Your task to perform on an android device: Search for pizza restaurants on Maps Image 0: 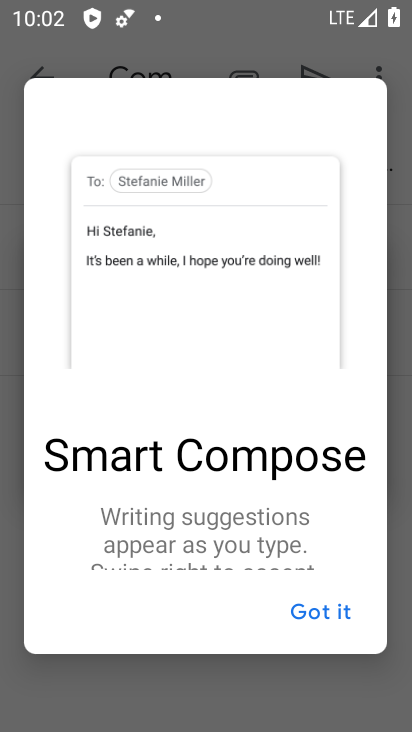
Step 0: press home button
Your task to perform on an android device: Search for pizza restaurants on Maps Image 1: 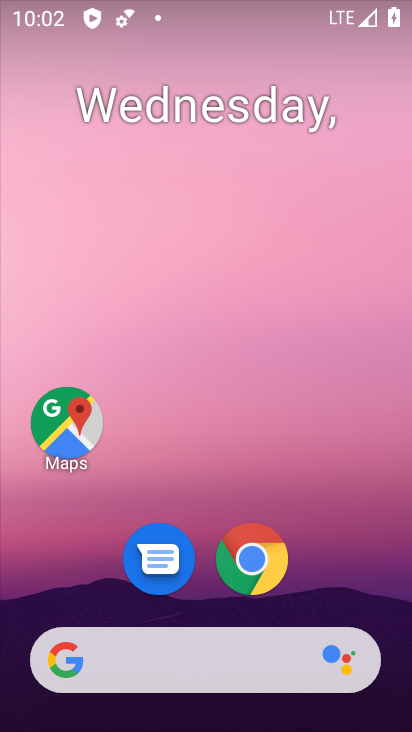
Step 1: click (258, 557)
Your task to perform on an android device: Search for pizza restaurants on Maps Image 2: 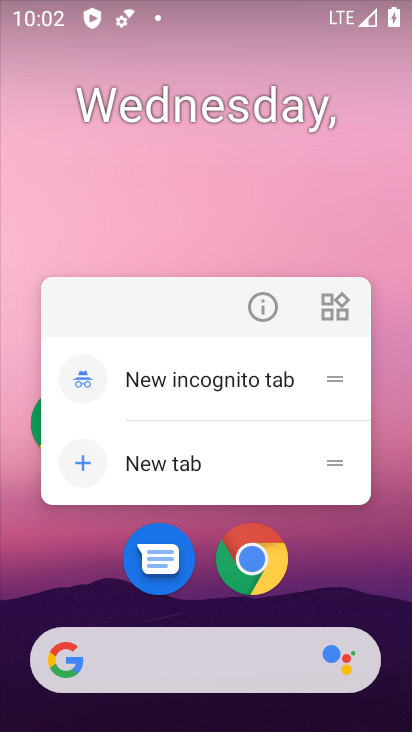
Step 2: click (258, 557)
Your task to perform on an android device: Search for pizza restaurants on Maps Image 3: 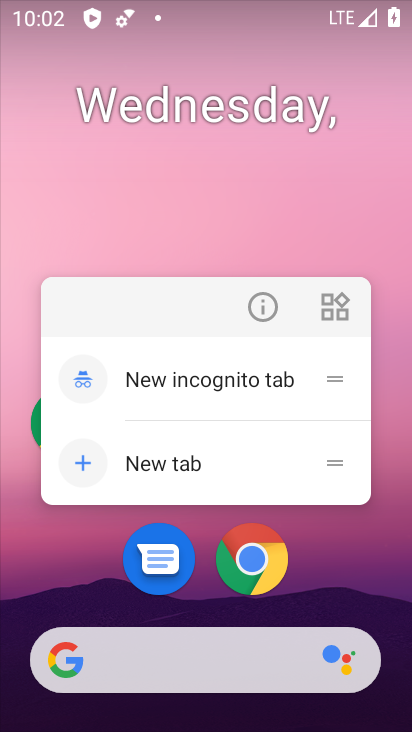
Step 3: click (258, 557)
Your task to perform on an android device: Search for pizza restaurants on Maps Image 4: 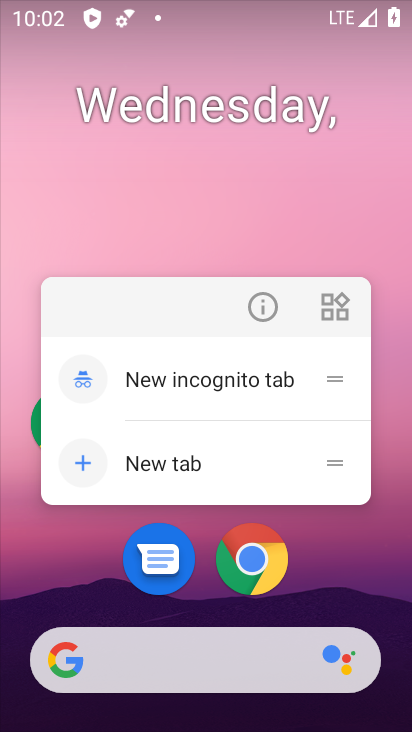
Step 4: drag from (324, 602) to (357, 15)
Your task to perform on an android device: Search for pizza restaurants on Maps Image 5: 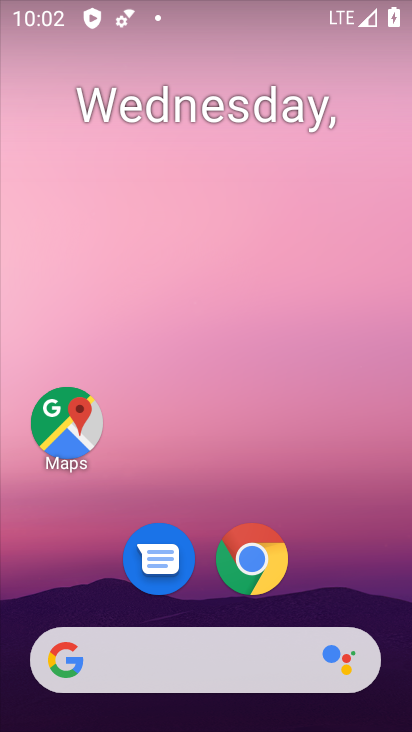
Step 5: click (268, 563)
Your task to perform on an android device: Search for pizza restaurants on Maps Image 6: 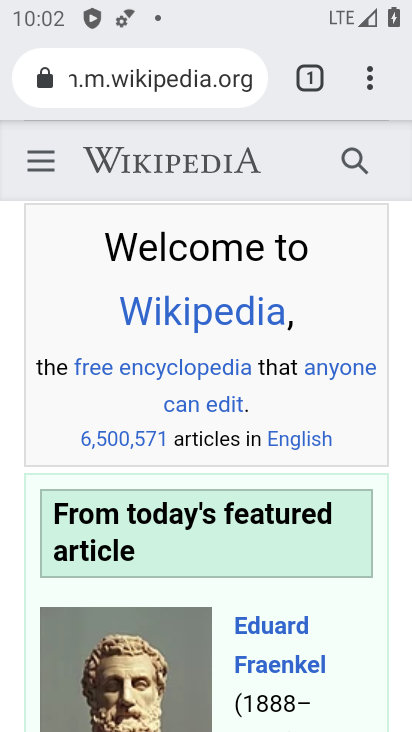
Step 6: click (190, 73)
Your task to perform on an android device: Search for pizza restaurants on Maps Image 7: 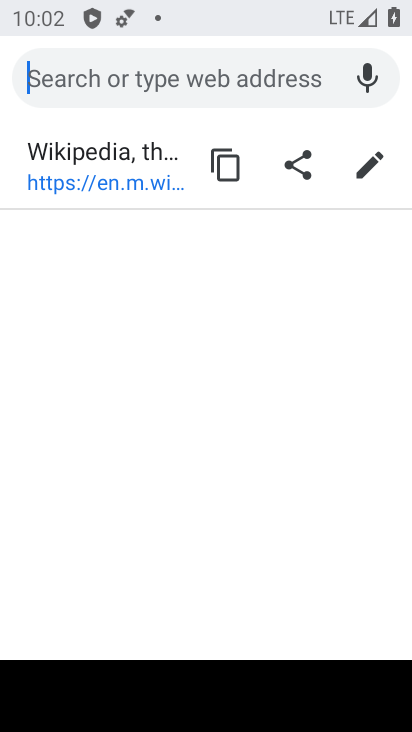
Step 7: type "pizza"
Your task to perform on an android device: Search for pizza restaurants on Maps Image 8: 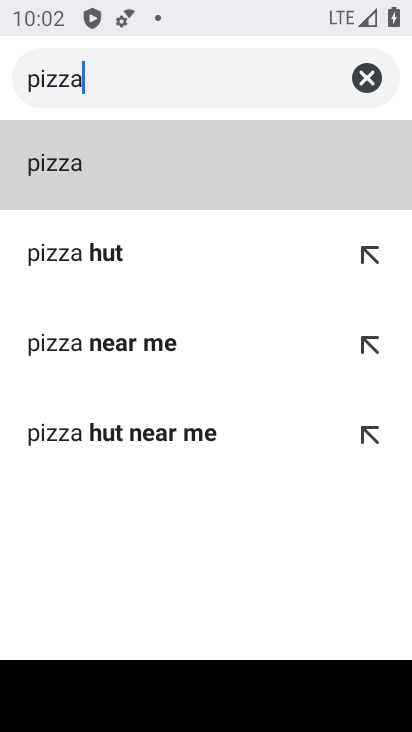
Step 8: type "  "
Your task to perform on an android device: Search for pizza restaurants on Maps Image 9: 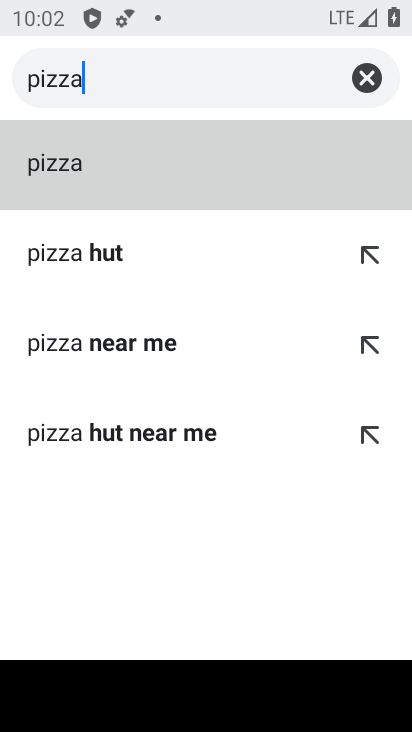
Step 9: click (86, 166)
Your task to perform on an android device: Search for pizza restaurants on Maps Image 10: 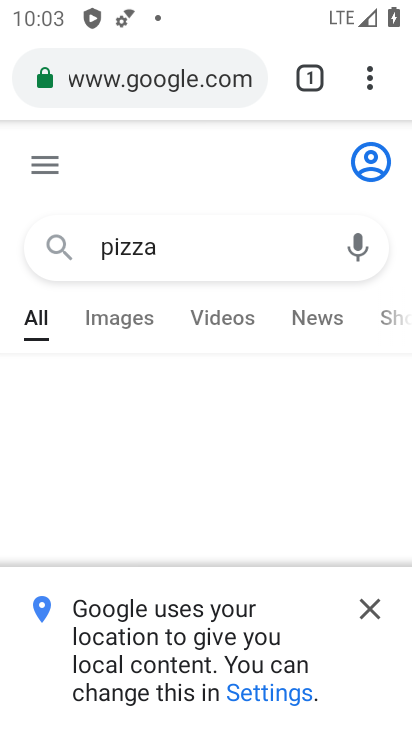
Step 10: click (373, 611)
Your task to perform on an android device: Search for pizza restaurants on Maps Image 11: 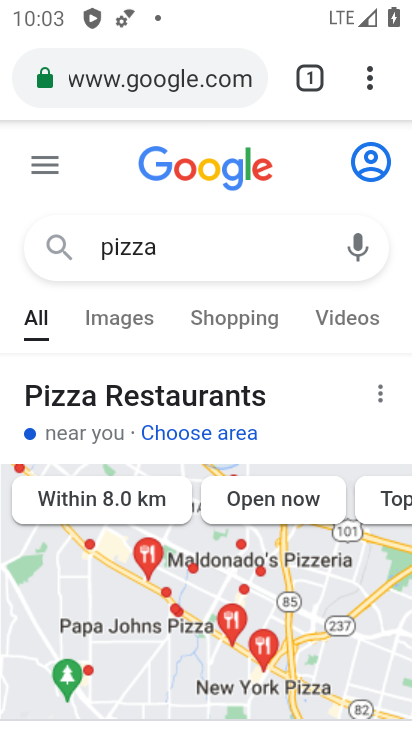
Step 11: task complete